Your task to perform on an android device: turn pop-ups off in chrome Image 0: 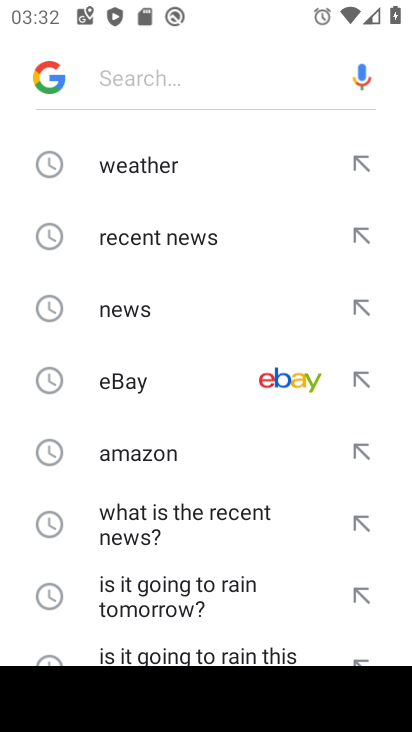
Step 0: press home button
Your task to perform on an android device: turn pop-ups off in chrome Image 1: 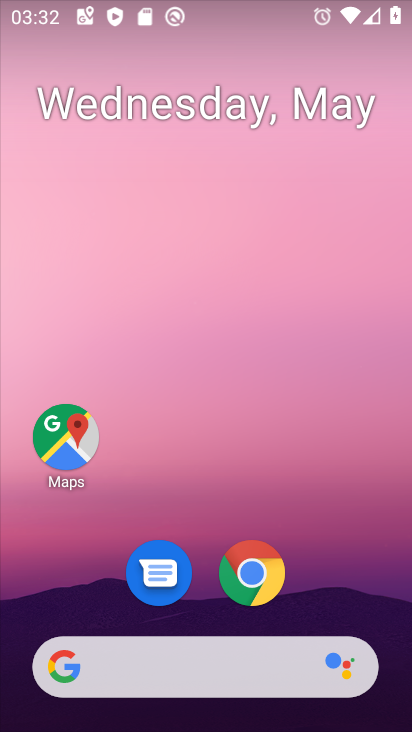
Step 1: click (255, 576)
Your task to perform on an android device: turn pop-ups off in chrome Image 2: 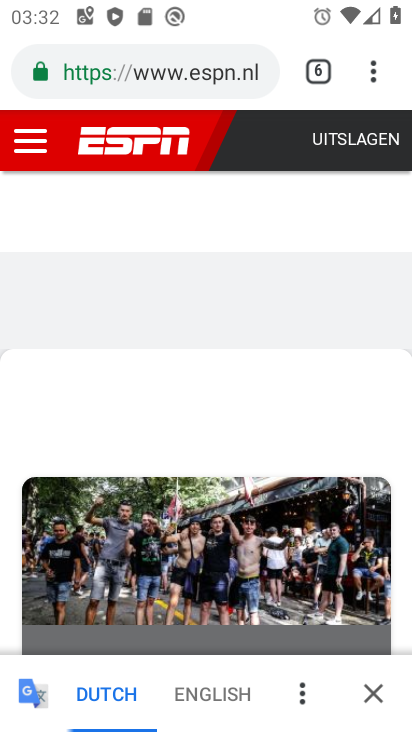
Step 2: click (375, 78)
Your task to perform on an android device: turn pop-ups off in chrome Image 3: 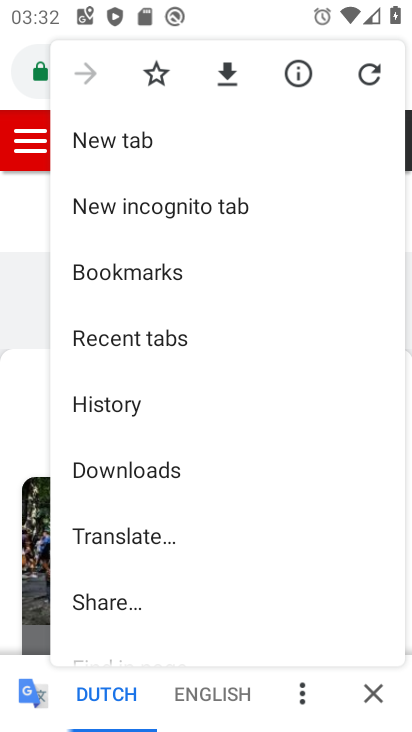
Step 3: drag from (136, 594) to (146, 204)
Your task to perform on an android device: turn pop-ups off in chrome Image 4: 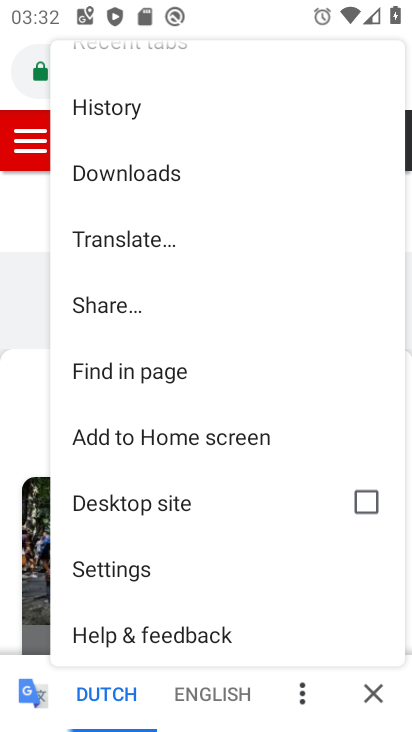
Step 4: click (123, 564)
Your task to perform on an android device: turn pop-ups off in chrome Image 5: 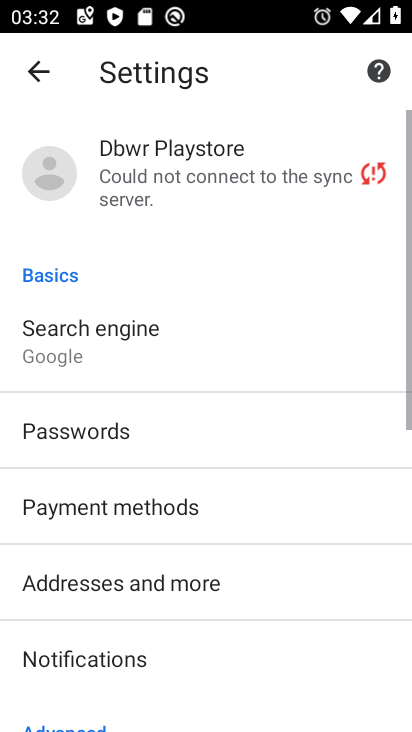
Step 5: drag from (101, 677) to (104, 287)
Your task to perform on an android device: turn pop-ups off in chrome Image 6: 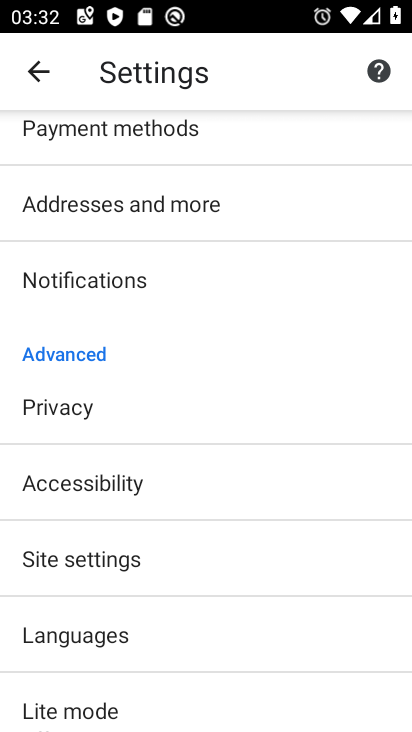
Step 6: click (76, 557)
Your task to perform on an android device: turn pop-ups off in chrome Image 7: 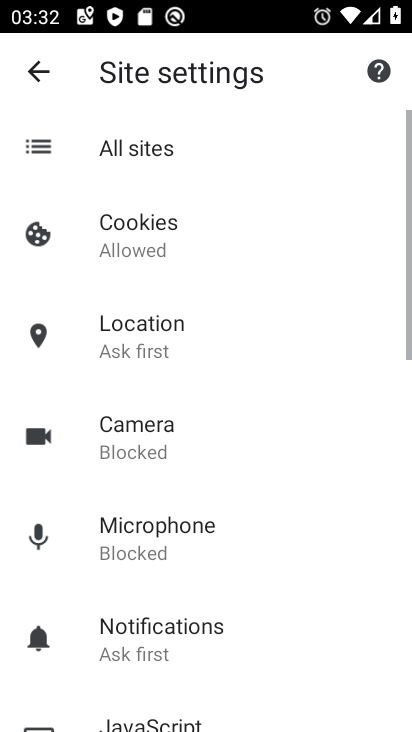
Step 7: drag from (133, 655) to (148, 250)
Your task to perform on an android device: turn pop-ups off in chrome Image 8: 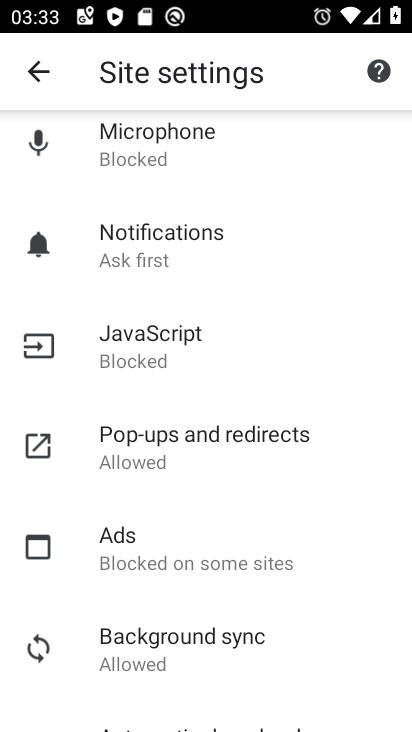
Step 8: click (175, 494)
Your task to perform on an android device: turn pop-ups off in chrome Image 9: 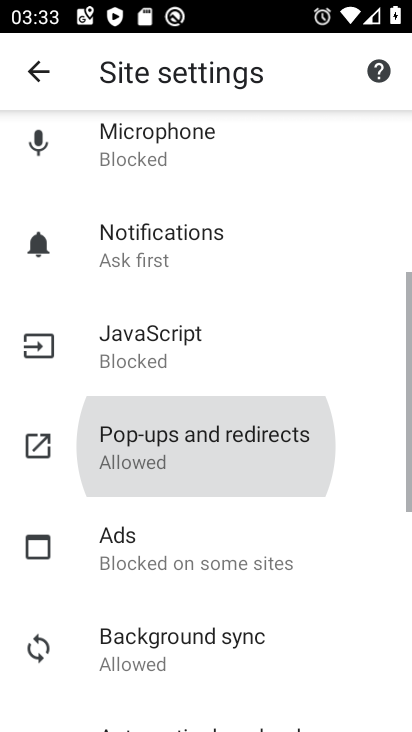
Step 9: drag from (177, 481) to (218, 258)
Your task to perform on an android device: turn pop-ups off in chrome Image 10: 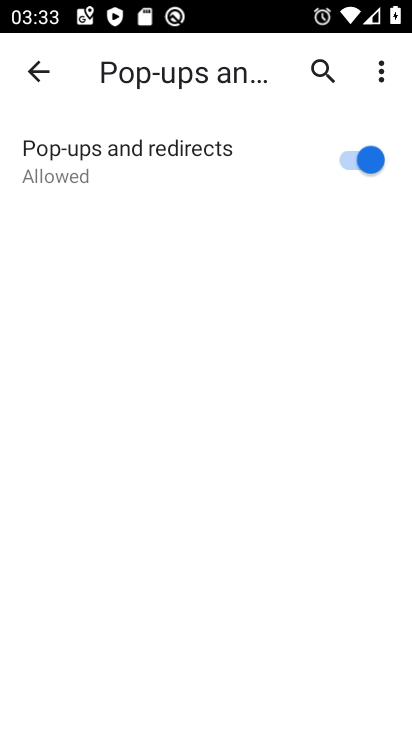
Step 10: click (351, 157)
Your task to perform on an android device: turn pop-ups off in chrome Image 11: 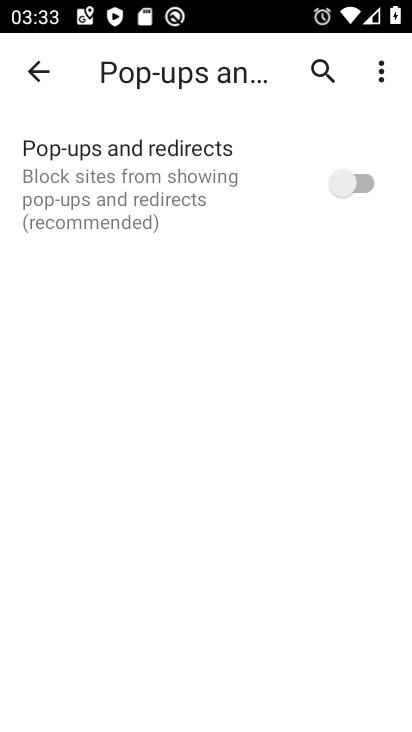
Step 11: task complete